Your task to perform on an android device: add a contact Image 0: 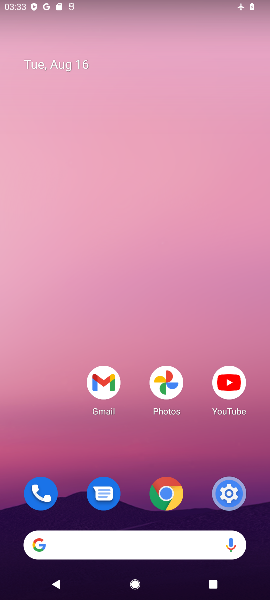
Step 0: press home button
Your task to perform on an android device: add a contact Image 1: 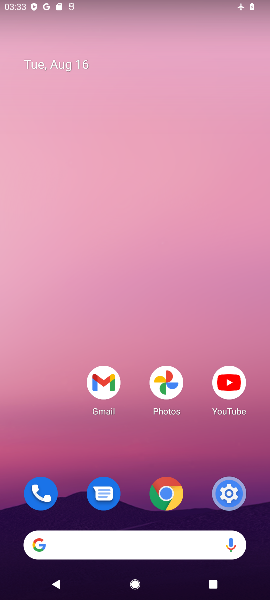
Step 1: drag from (58, 452) to (66, 117)
Your task to perform on an android device: add a contact Image 2: 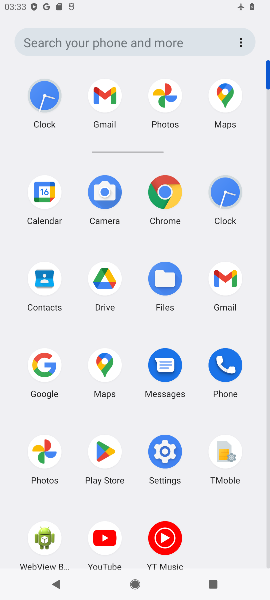
Step 2: click (44, 278)
Your task to perform on an android device: add a contact Image 3: 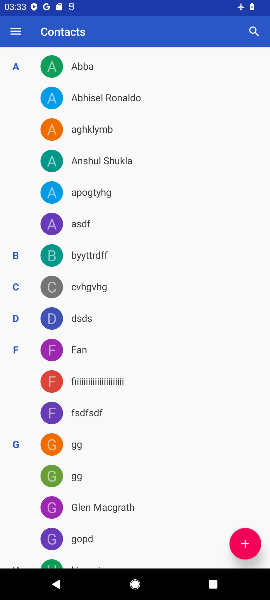
Step 3: click (246, 542)
Your task to perform on an android device: add a contact Image 4: 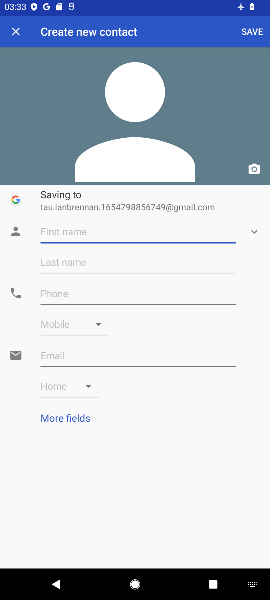
Step 4: type "lololo"
Your task to perform on an android device: add a contact Image 5: 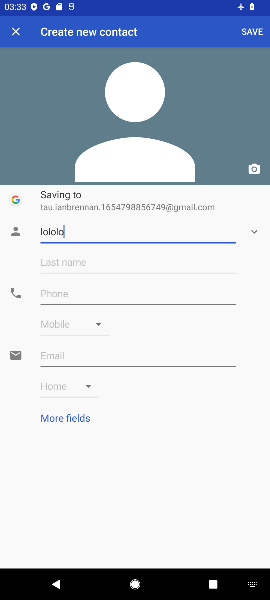
Step 5: click (207, 297)
Your task to perform on an android device: add a contact Image 6: 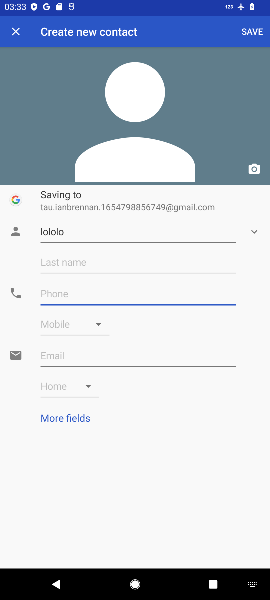
Step 6: type "12344556778"
Your task to perform on an android device: add a contact Image 7: 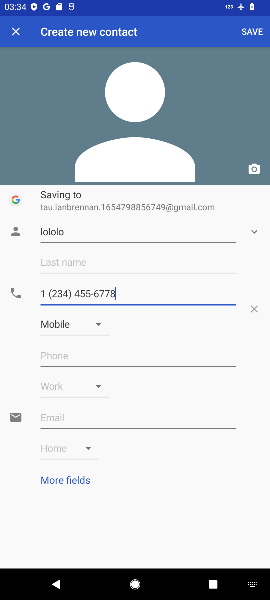
Step 7: click (250, 32)
Your task to perform on an android device: add a contact Image 8: 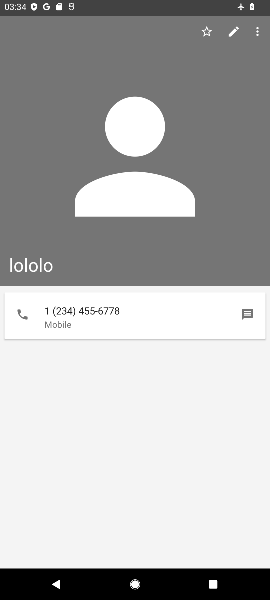
Step 8: task complete